Your task to perform on an android device: Go to display settings Image 0: 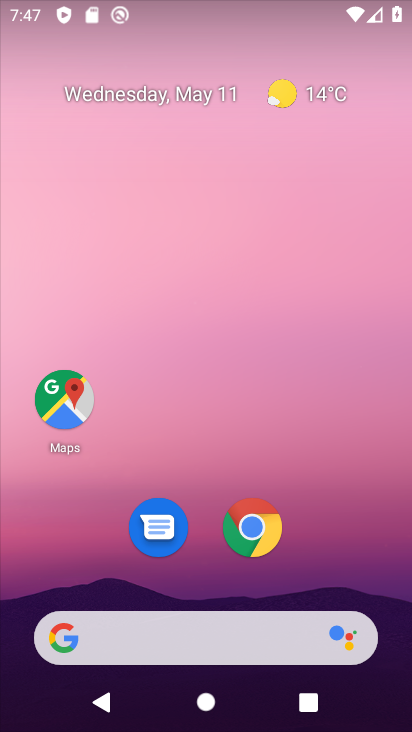
Step 0: drag from (266, 698) to (268, 294)
Your task to perform on an android device: Go to display settings Image 1: 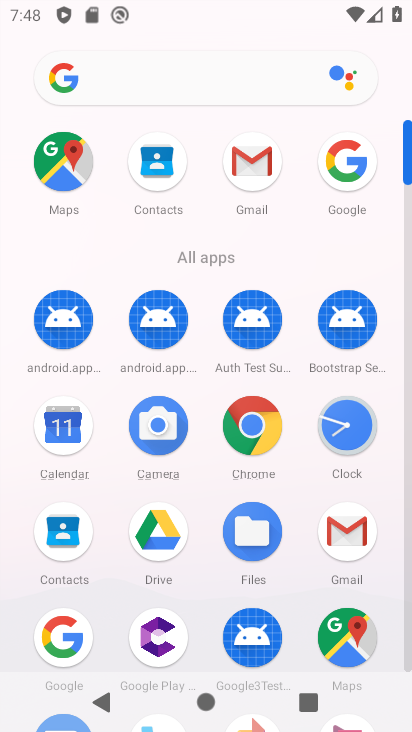
Step 1: drag from (320, 487) to (324, 329)
Your task to perform on an android device: Go to display settings Image 2: 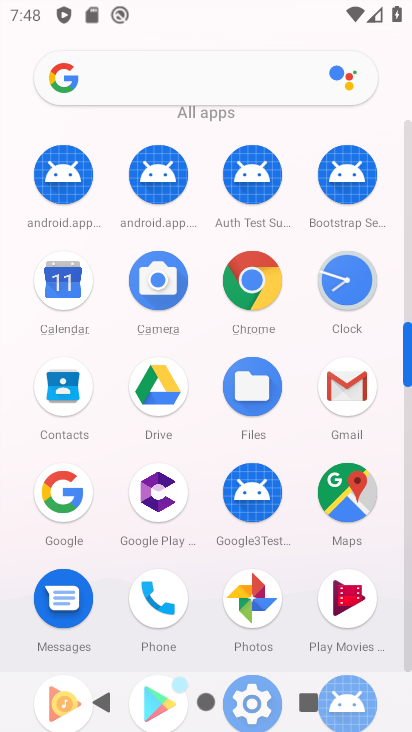
Step 2: drag from (282, 441) to (283, 252)
Your task to perform on an android device: Go to display settings Image 3: 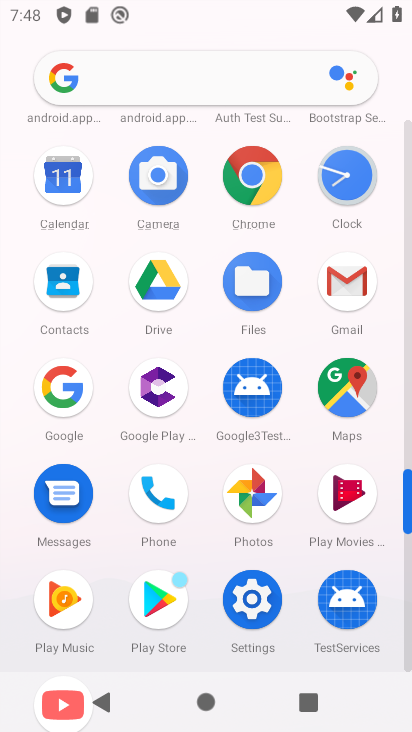
Step 3: click (262, 618)
Your task to perform on an android device: Go to display settings Image 4: 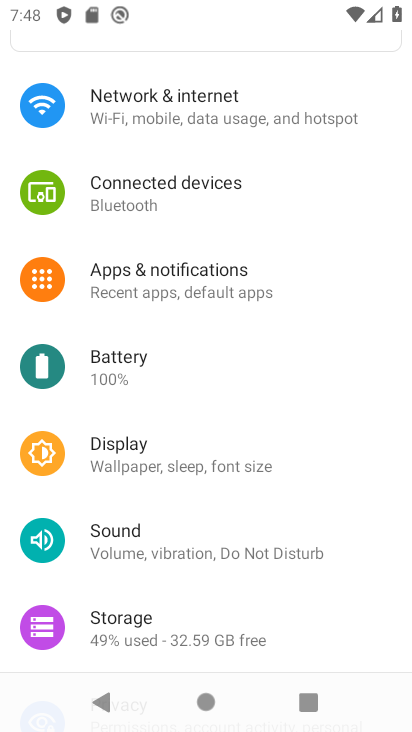
Step 4: click (218, 459)
Your task to perform on an android device: Go to display settings Image 5: 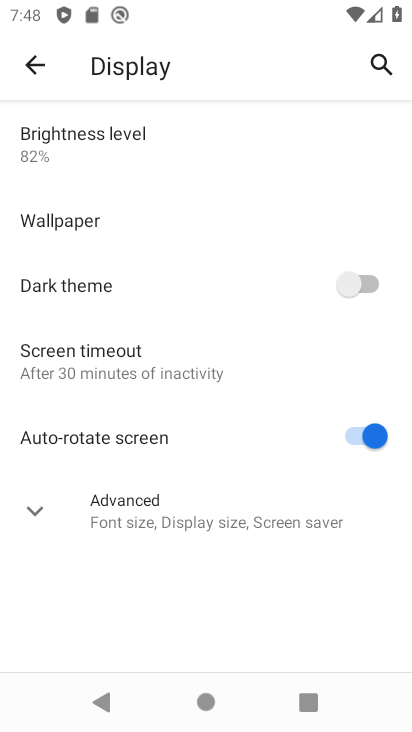
Step 5: click (201, 512)
Your task to perform on an android device: Go to display settings Image 6: 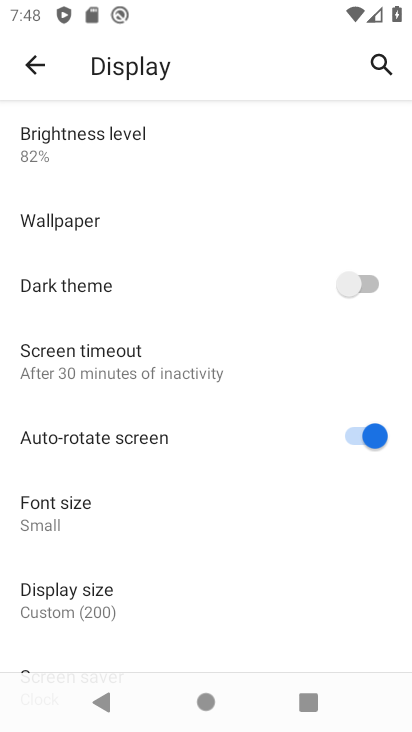
Step 6: task complete